Your task to perform on an android device: check data usage Image 0: 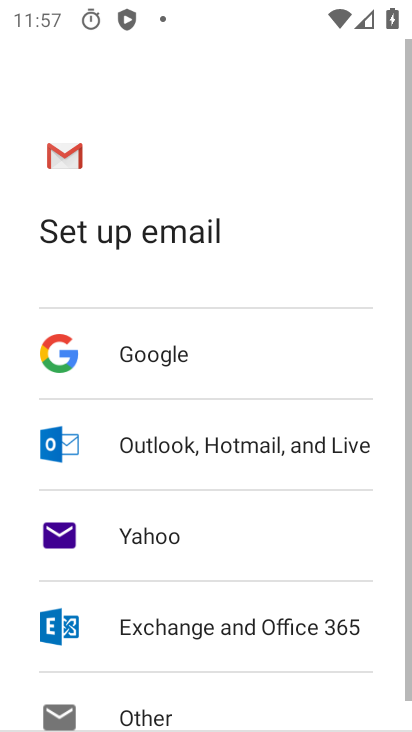
Step 0: press home button
Your task to perform on an android device: check data usage Image 1: 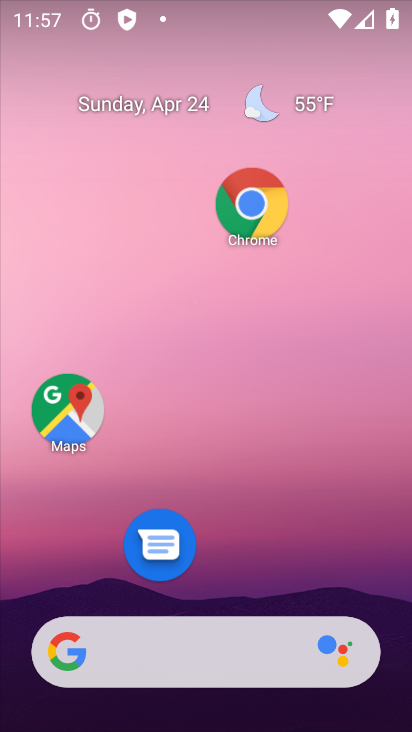
Step 1: drag from (308, 694) to (254, 205)
Your task to perform on an android device: check data usage Image 2: 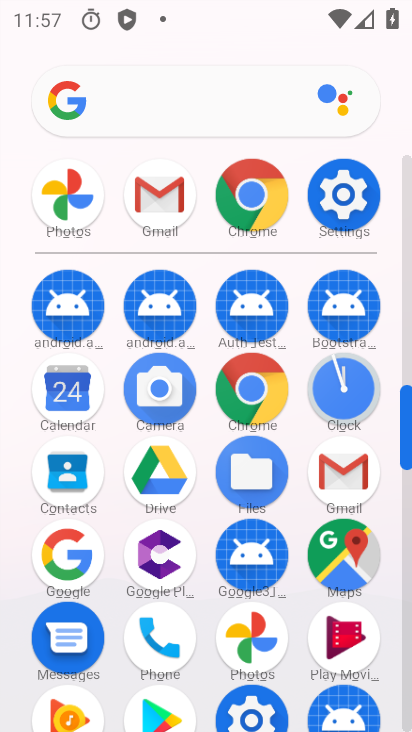
Step 2: click (344, 189)
Your task to perform on an android device: check data usage Image 3: 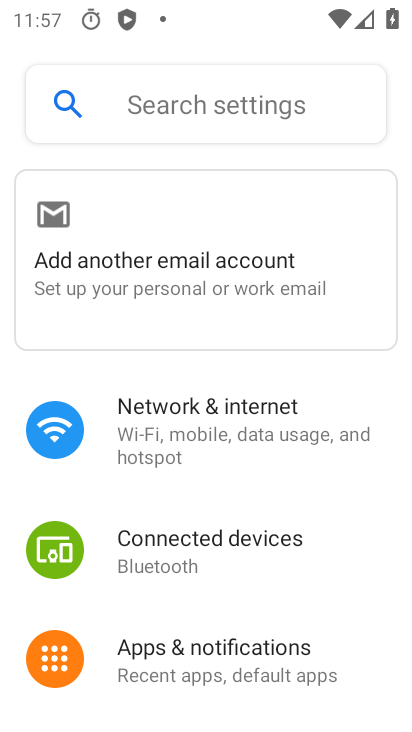
Step 3: click (243, 115)
Your task to perform on an android device: check data usage Image 4: 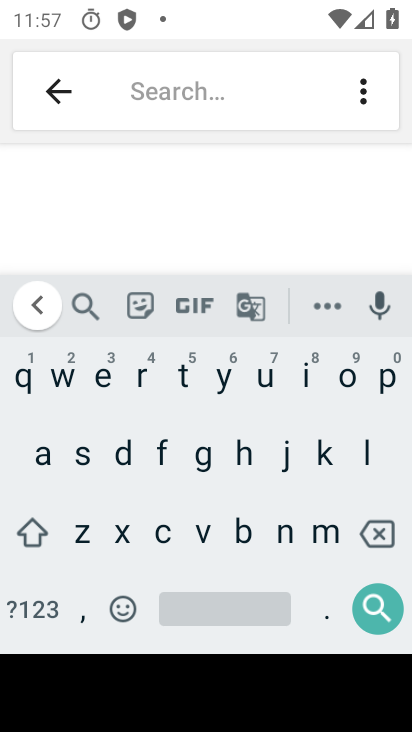
Step 4: click (225, 103)
Your task to perform on an android device: check data usage Image 5: 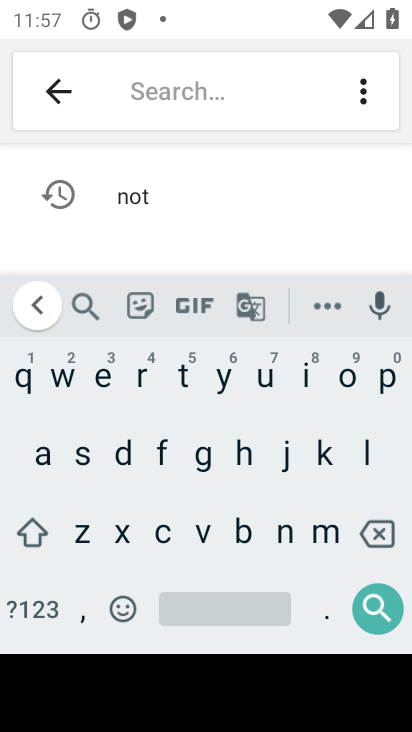
Step 5: click (119, 447)
Your task to perform on an android device: check data usage Image 6: 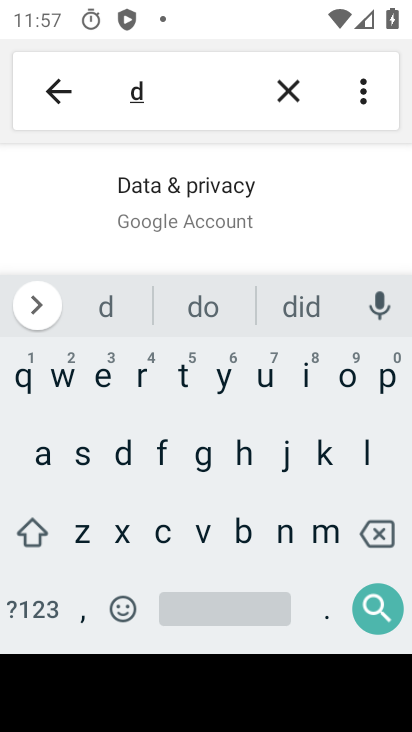
Step 6: click (42, 451)
Your task to perform on an android device: check data usage Image 7: 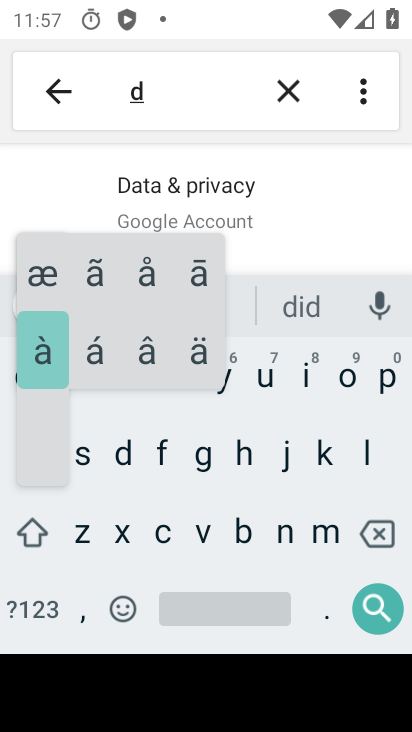
Step 7: click (45, 460)
Your task to perform on an android device: check data usage Image 8: 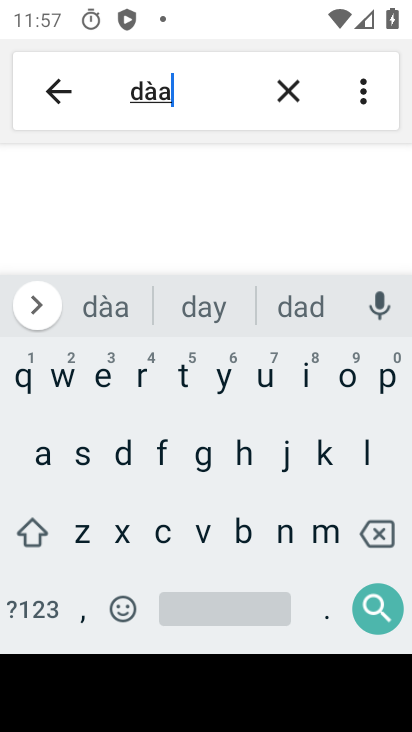
Step 8: click (382, 538)
Your task to perform on an android device: check data usage Image 9: 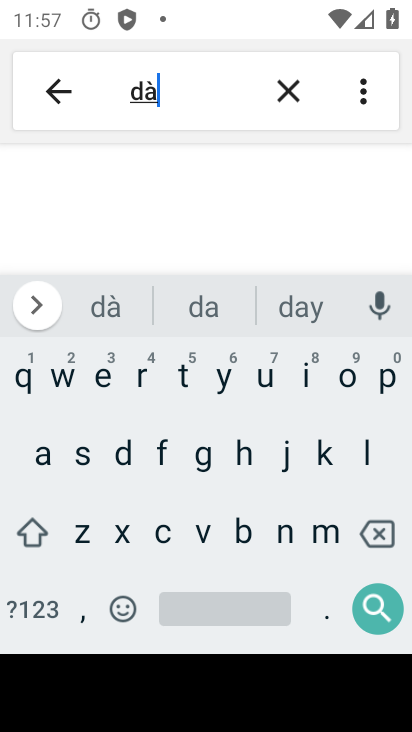
Step 9: click (382, 538)
Your task to perform on an android device: check data usage Image 10: 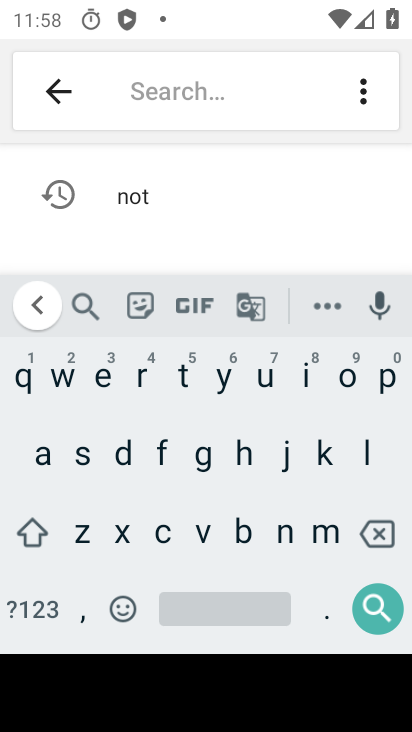
Step 10: drag from (120, 458) to (191, 443)
Your task to perform on an android device: check data usage Image 11: 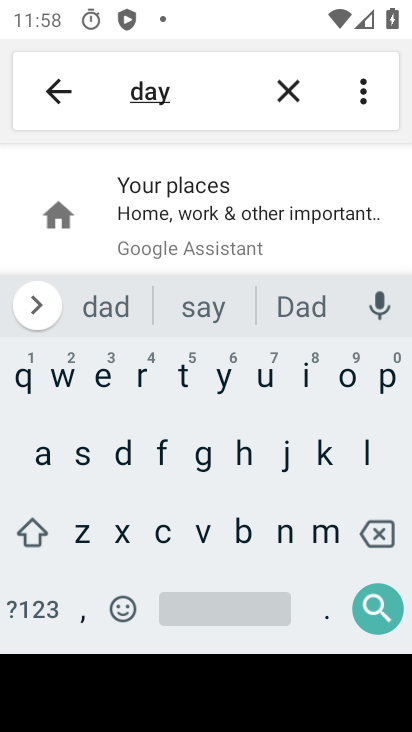
Step 11: click (287, 100)
Your task to perform on an android device: check data usage Image 12: 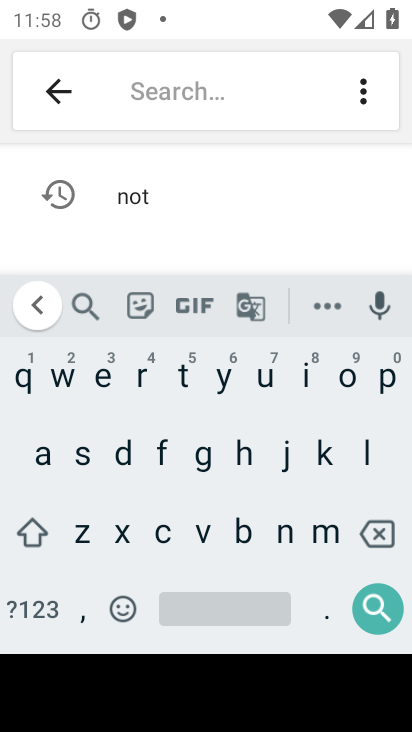
Step 12: click (128, 461)
Your task to perform on an android device: check data usage Image 13: 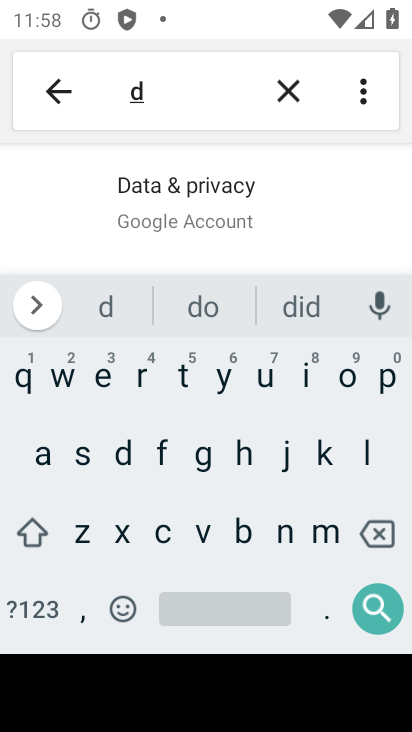
Step 13: click (40, 463)
Your task to perform on an android device: check data usage Image 14: 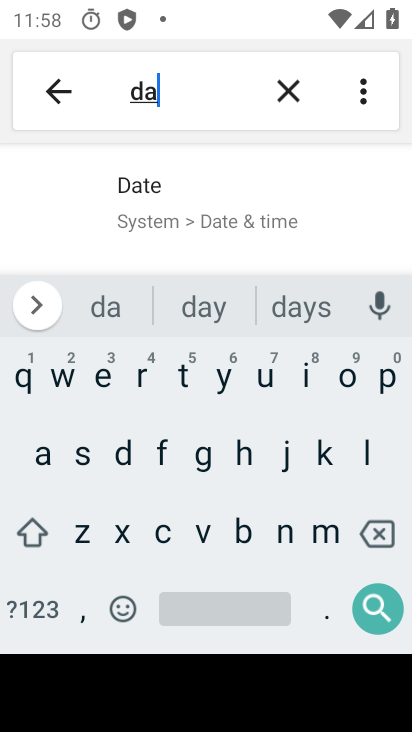
Step 14: click (187, 377)
Your task to perform on an android device: check data usage Image 15: 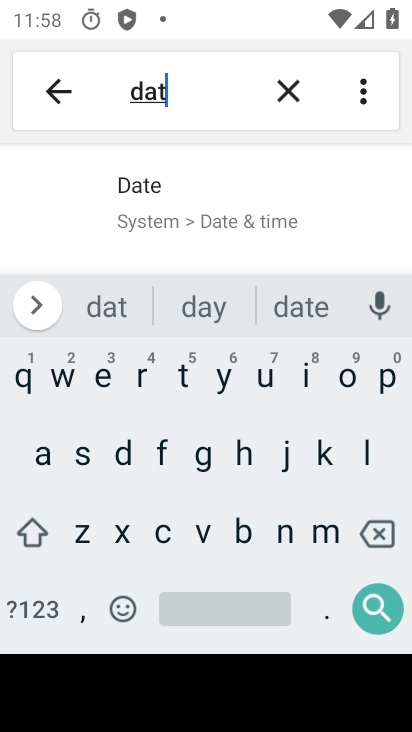
Step 15: click (33, 454)
Your task to perform on an android device: check data usage Image 16: 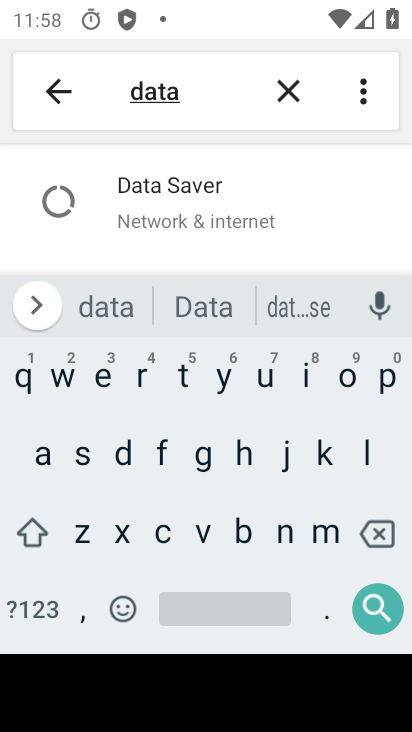
Step 16: click (191, 613)
Your task to perform on an android device: check data usage Image 17: 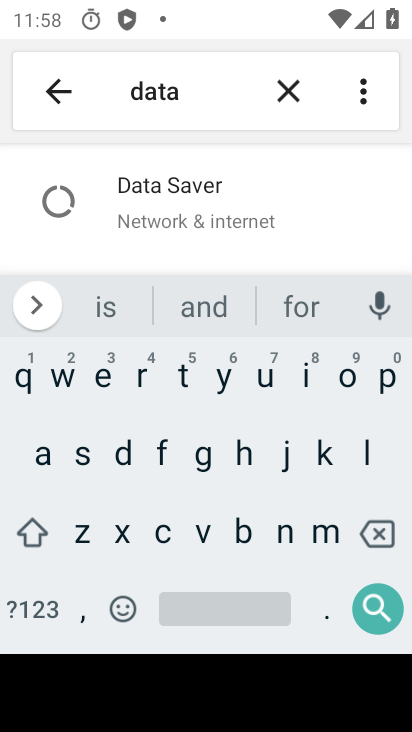
Step 17: click (268, 378)
Your task to perform on an android device: check data usage Image 18: 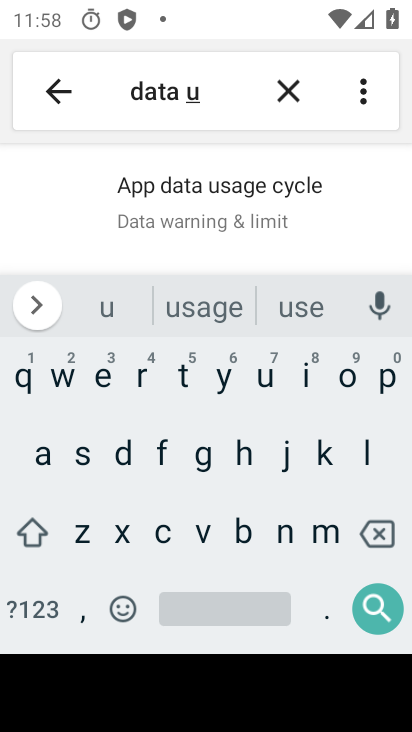
Step 18: drag from (187, 239) to (153, 143)
Your task to perform on an android device: check data usage Image 19: 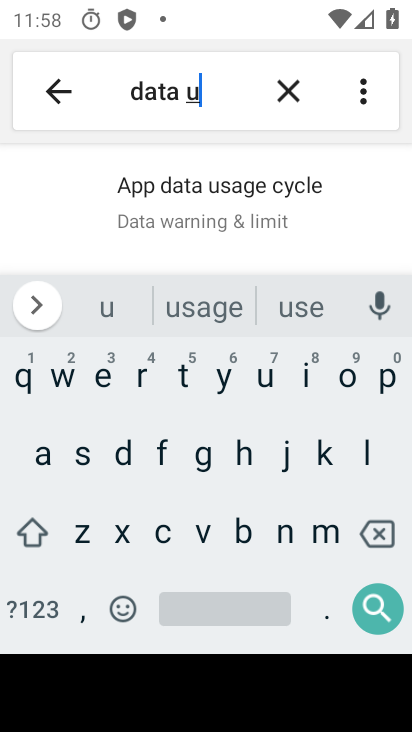
Step 19: press back button
Your task to perform on an android device: check data usage Image 20: 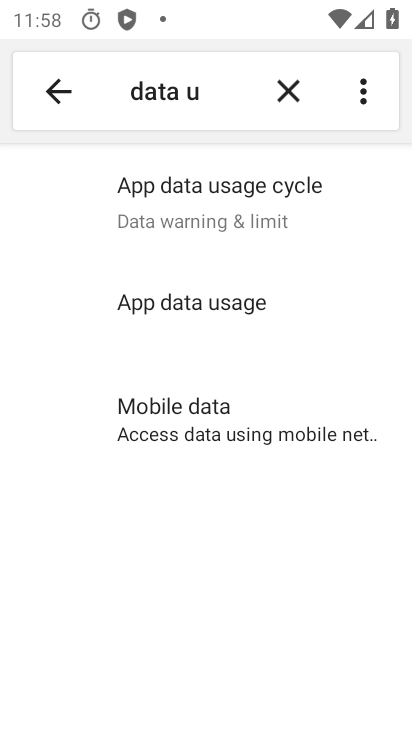
Step 20: click (184, 301)
Your task to perform on an android device: check data usage Image 21: 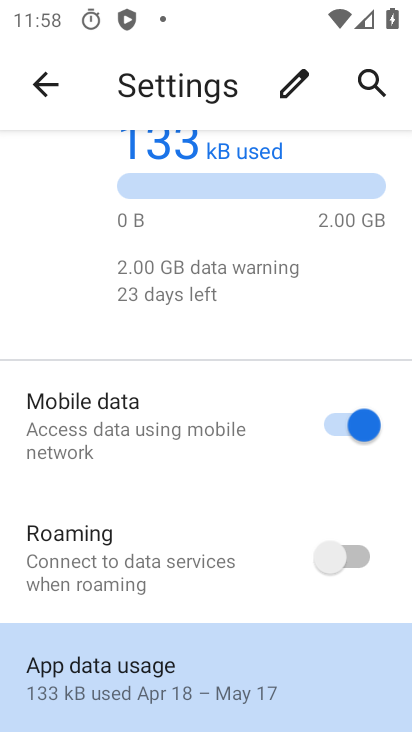
Step 21: click (146, 701)
Your task to perform on an android device: check data usage Image 22: 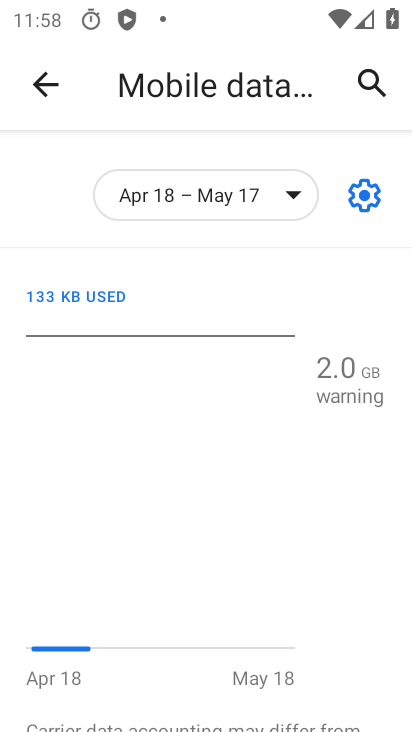
Step 22: task complete